Your task to perform on an android device: check android version Image 0: 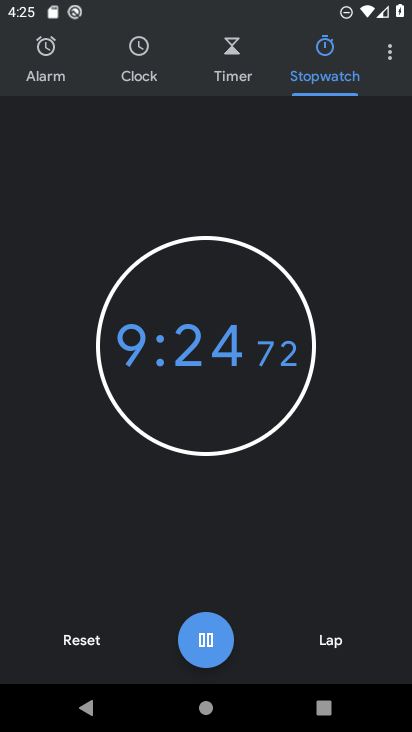
Step 0: press home button
Your task to perform on an android device: check android version Image 1: 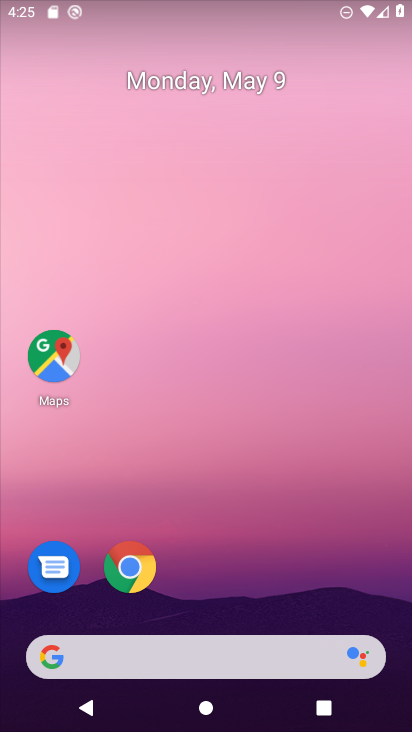
Step 1: drag from (211, 423) to (209, 115)
Your task to perform on an android device: check android version Image 2: 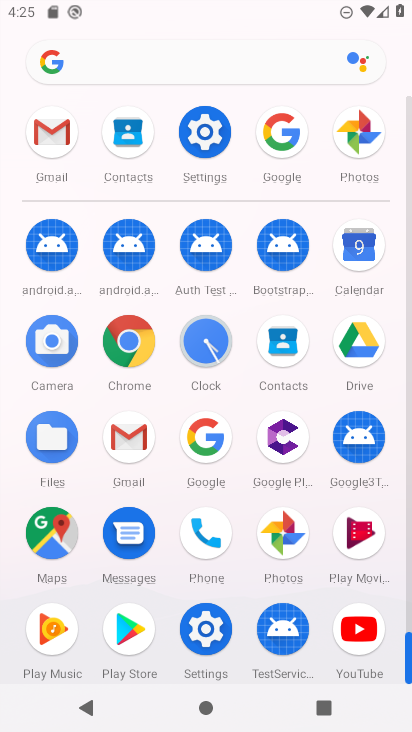
Step 2: click (218, 129)
Your task to perform on an android device: check android version Image 3: 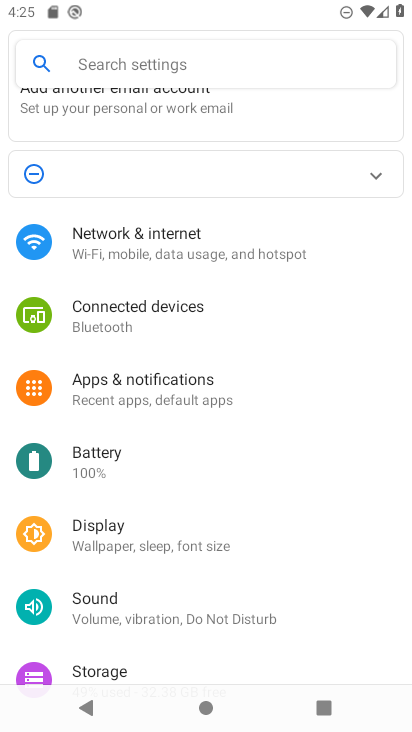
Step 3: drag from (195, 612) to (204, 346)
Your task to perform on an android device: check android version Image 4: 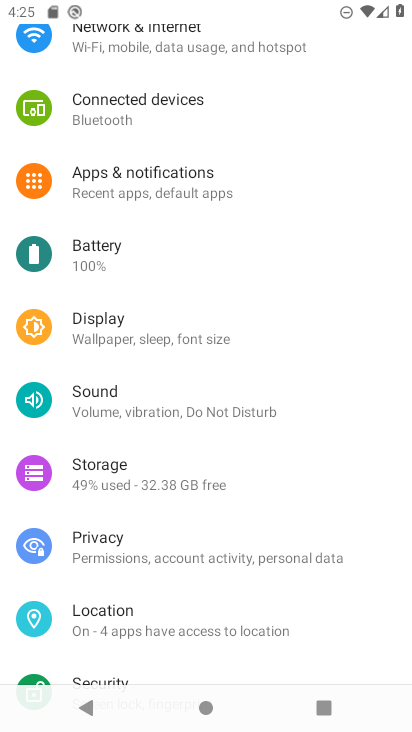
Step 4: drag from (176, 668) to (177, 313)
Your task to perform on an android device: check android version Image 5: 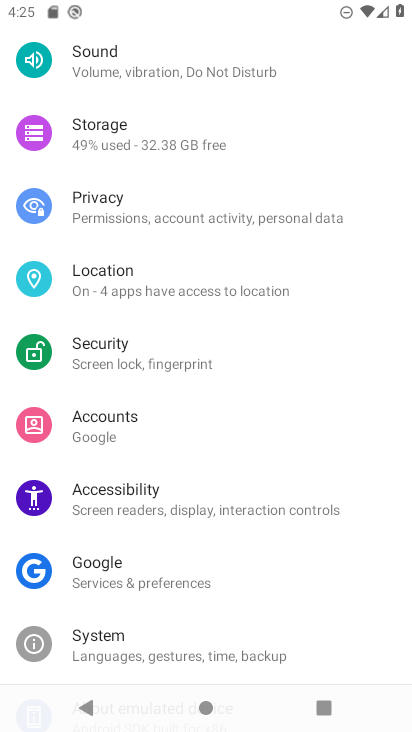
Step 5: drag from (190, 578) to (206, 264)
Your task to perform on an android device: check android version Image 6: 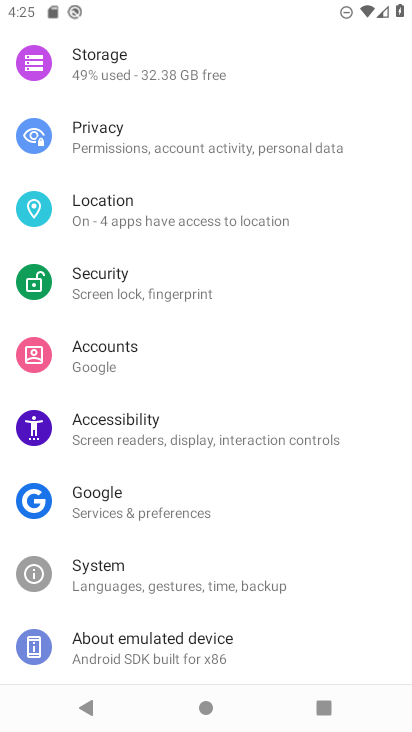
Step 6: click (183, 648)
Your task to perform on an android device: check android version Image 7: 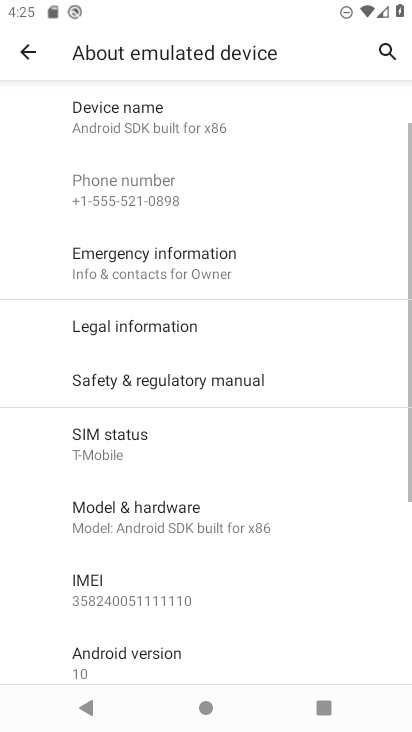
Step 7: click (161, 655)
Your task to perform on an android device: check android version Image 8: 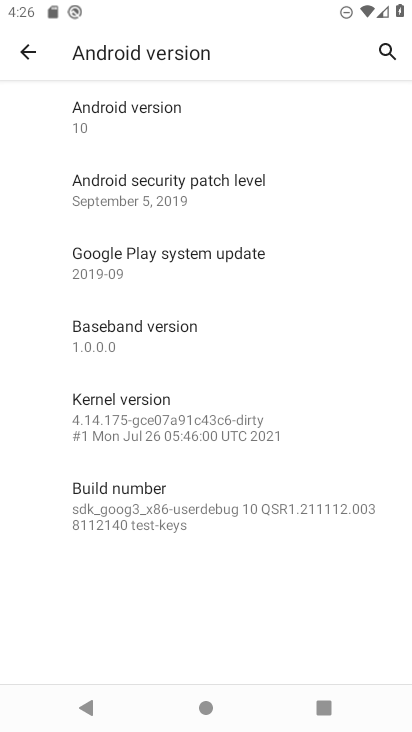
Step 8: click (145, 103)
Your task to perform on an android device: check android version Image 9: 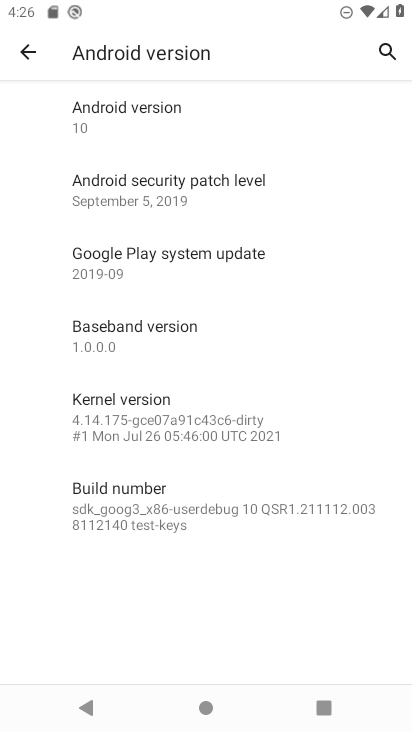
Step 9: task complete